Your task to perform on an android device: Turn on the flashlight Image 0: 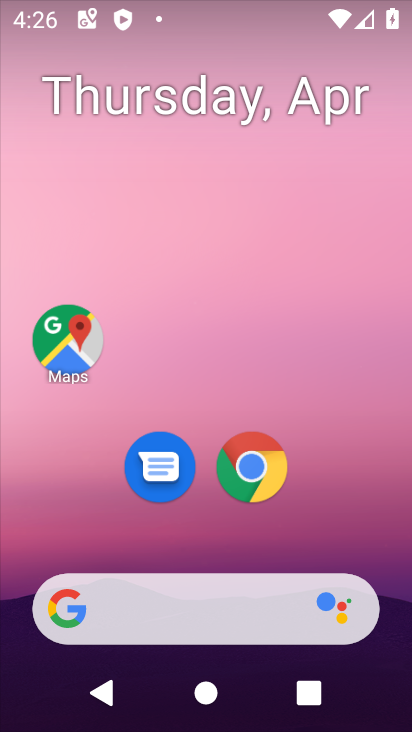
Step 0: drag from (280, 519) to (339, 5)
Your task to perform on an android device: Turn on the flashlight Image 1: 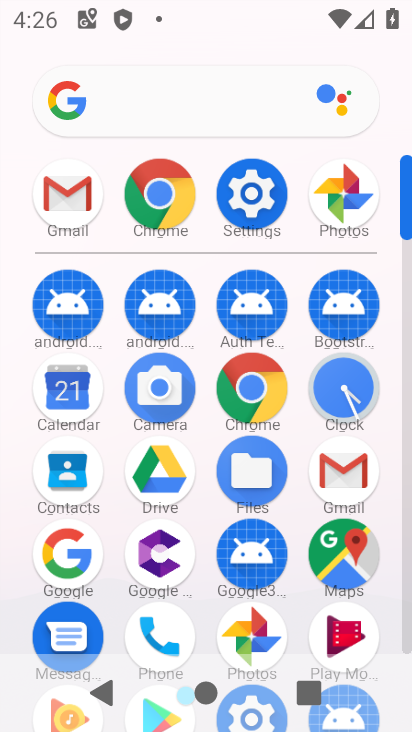
Step 1: click (246, 191)
Your task to perform on an android device: Turn on the flashlight Image 2: 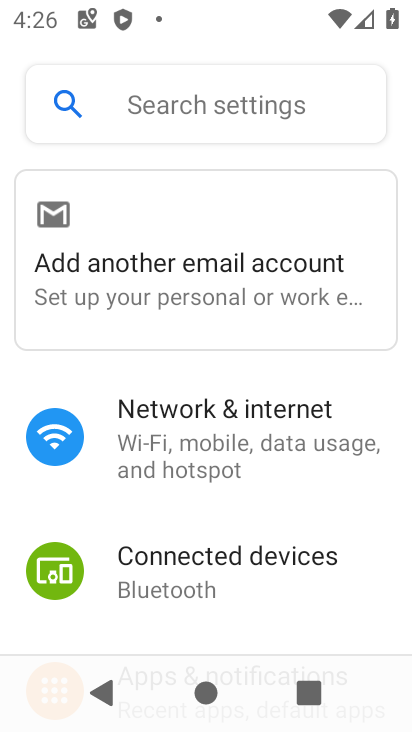
Step 2: click (192, 100)
Your task to perform on an android device: Turn on the flashlight Image 3: 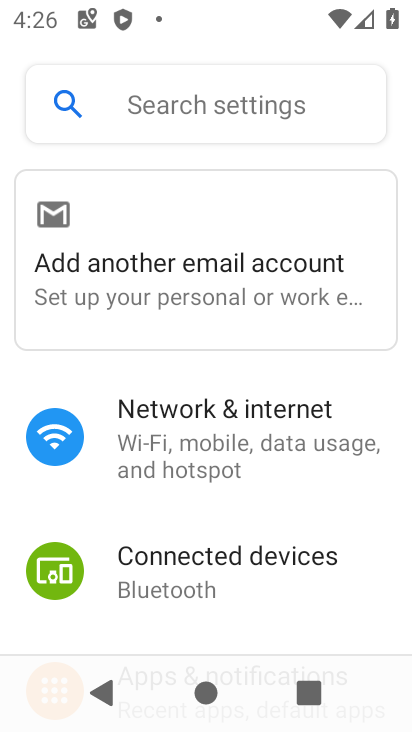
Step 3: type ""
Your task to perform on an android device: Turn on the flashlight Image 4: 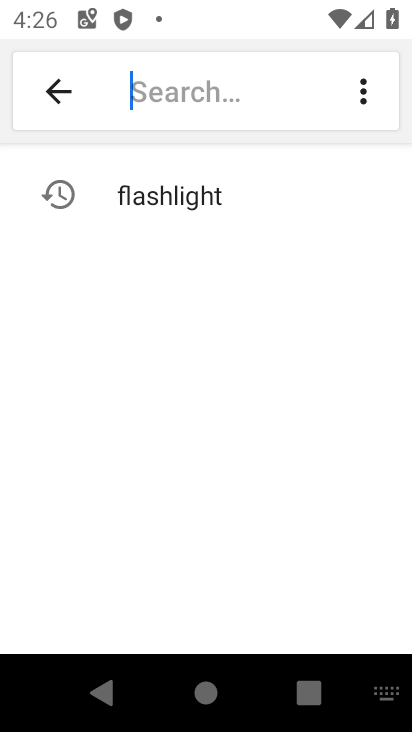
Step 4: click (152, 193)
Your task to perform on an android device: Turn on the flashlight Image 5: 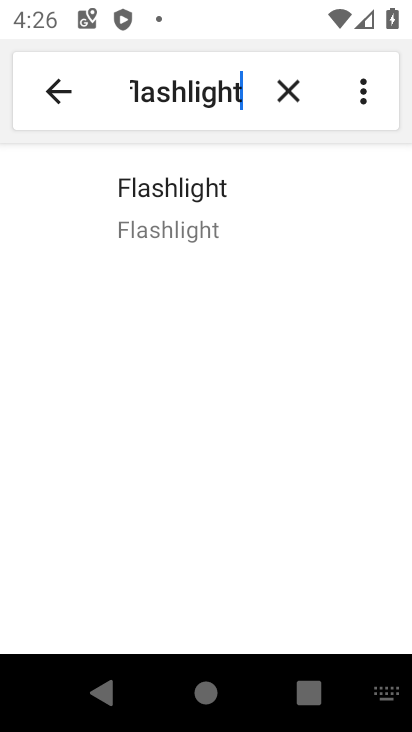
Step 5: click (190, 190)
Your task to perform on an android device: Turn on the flashlight Image 6: 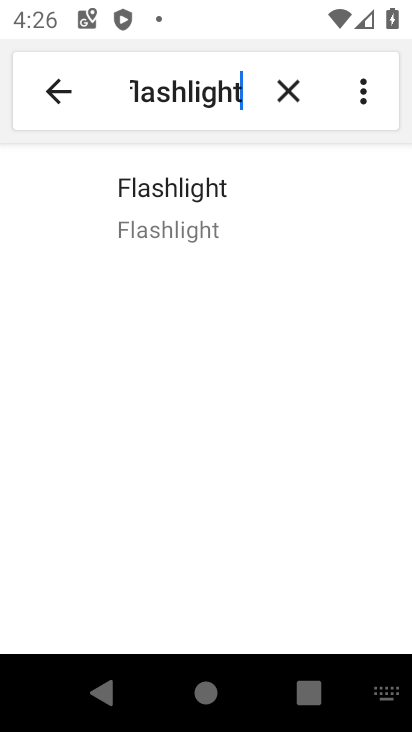
Step 6: click (190, 190)
Your task to perform on an android device: Turn on the flashlight Image 7: 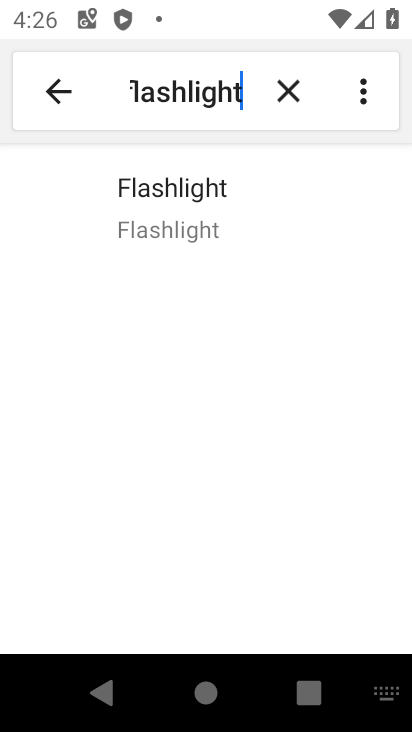
Step 7: task complete